Your task to perform on an android device: allow notifications from all sites in the chrome app Image 0: 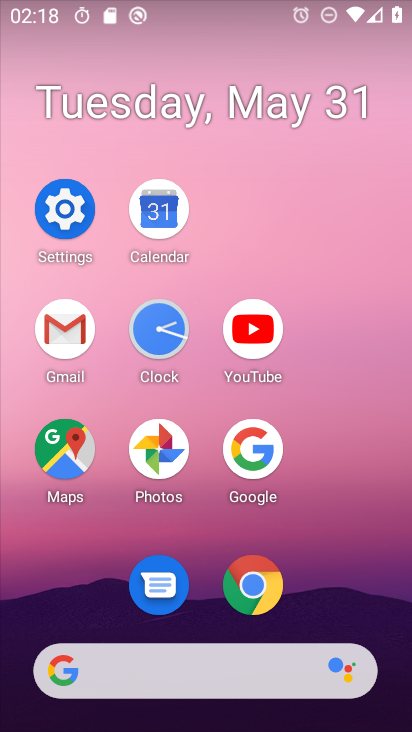
Step 0: click (239, 580)
Your task to perform on an android device: allow notifications from all sites in the chrome app Image 1: 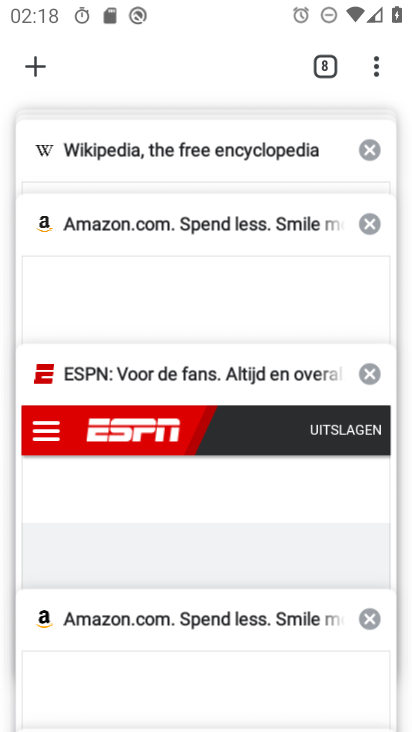
Step 1: click (46, 64)
Your task to perform on an android device: allow notifications from all sites in the chrome app Image 2: 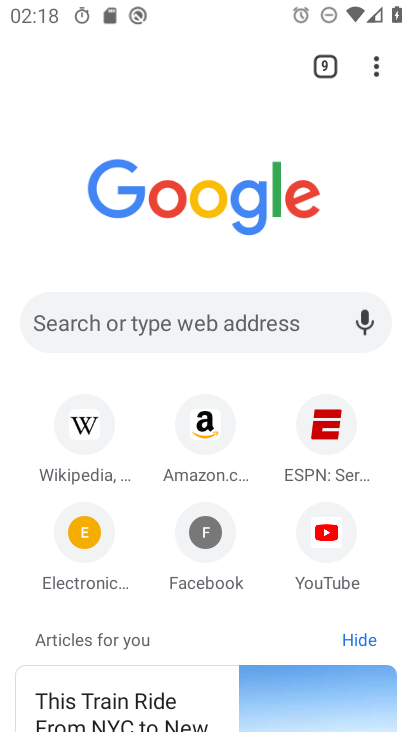
Step 2: click (387, 70)
Your task to perform on an android device: allow notifications from all sites in the chrome app Image 3: 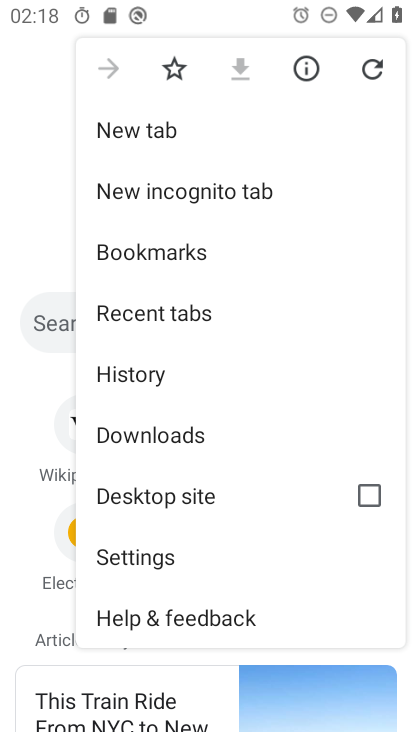
Step 3: drag from (315, 558) to (351, 224)
Your task to perform on an android device: allow notifications from all sites in the chrome app Image 4: 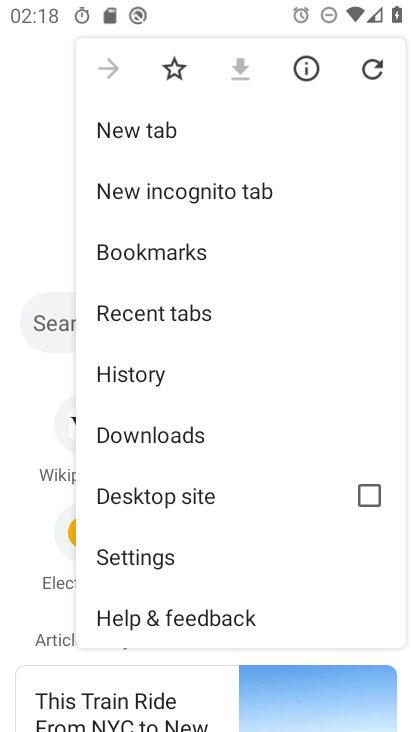
Step 4: click (188, 560)
Your task to perform on an android device: allow notifications from all sites in the chrome app Image 5: 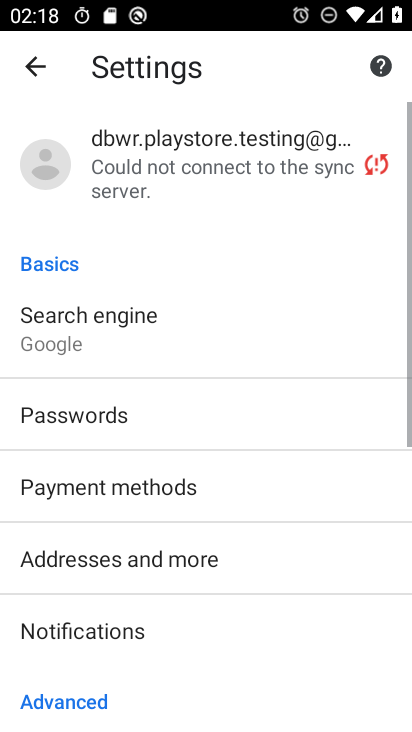
Step 5: drag from (188, 560) to (244, 287)
Your task to perform on an android device: allow notifications from all sites in the chrome app Image 6: 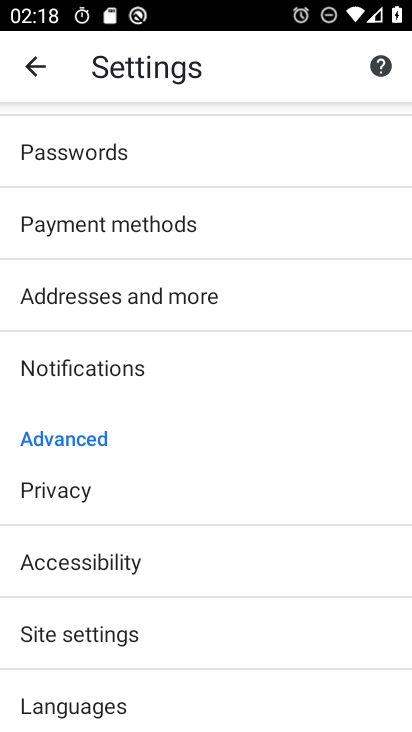
Step 6: click (182, 363)
Your task to perform on an android device: allow notifications from all sites in the chrome app Image 7: 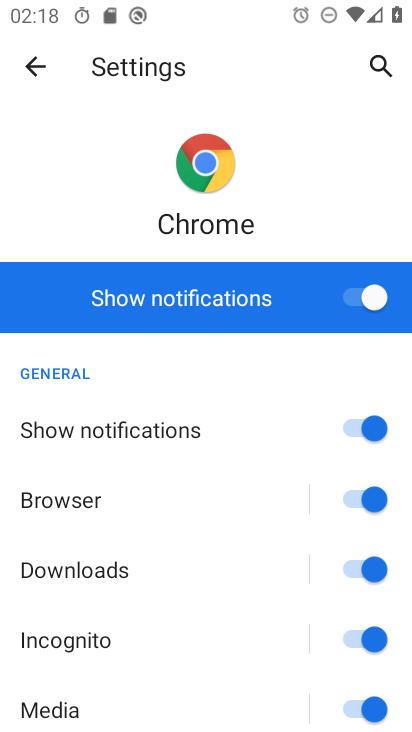
Step 7: task complete